Your task to perform on an android device: manage bookmarks in the chrome app Image 0: 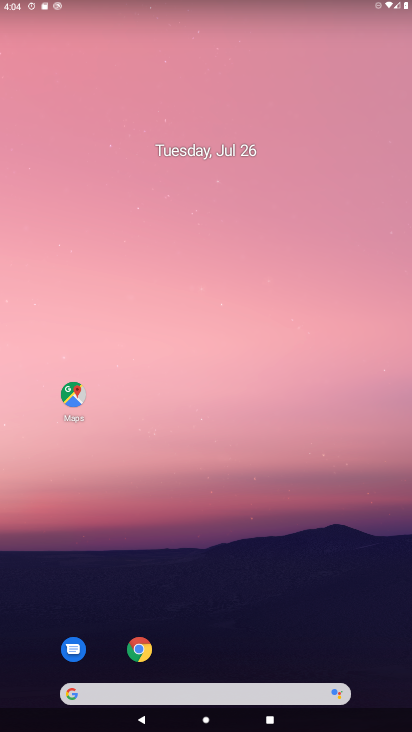
Step 0: drag from (371, 668) to (137, 6)
Your task to perform on an android device: manage bookmarks in the chrome app Image 1: 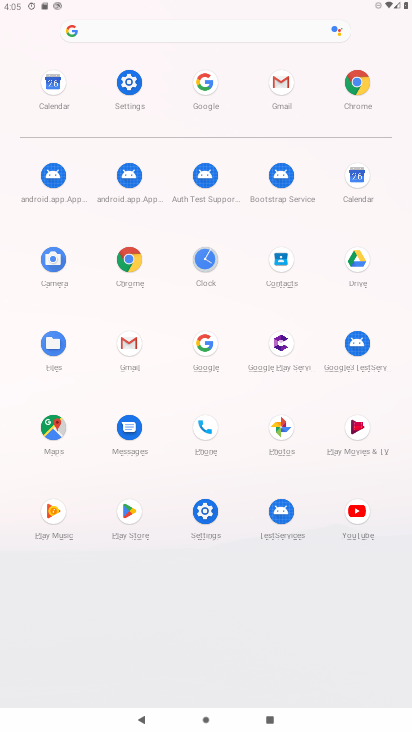
Step 1: click (123, 259)
Your task to perform on an android device: manage bookmarks in the chrome app Image 2: 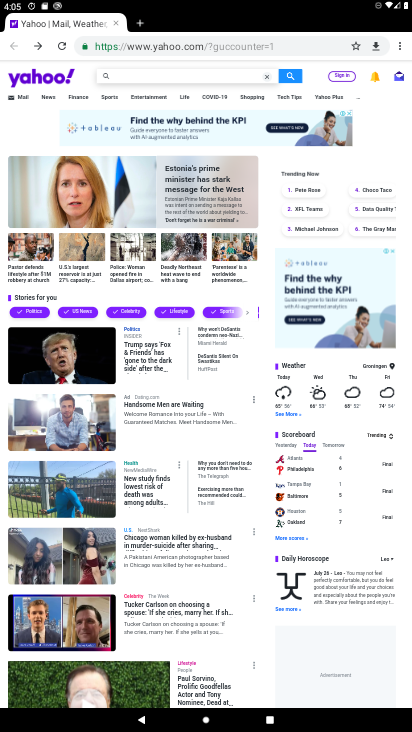
Step 2: task complete